Your task to perform on an android device: Open the web browser Image 0: 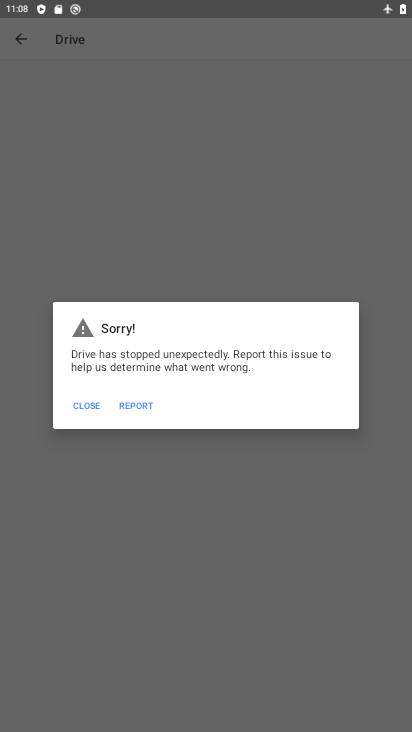
Step 0: press home button
Your task to perform on an android device: Open the web browser Image 1: 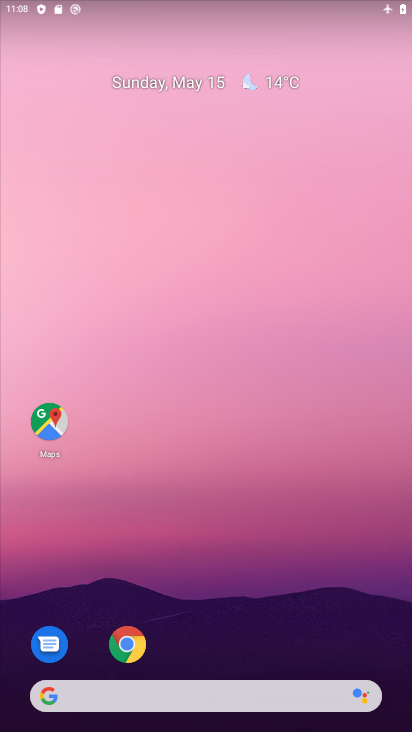
Step 1: click (120, 636)
Your task to perform on an android device: Open the web browser Image 2: 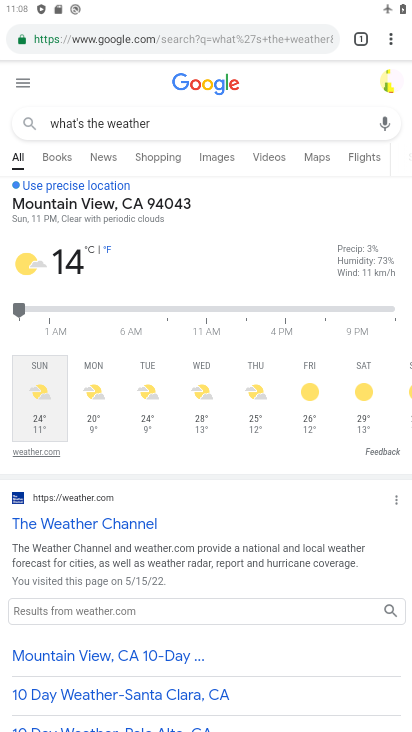
Step 2: task complete